Your task to perform on an android device: turn pop-ups on in chrome Image 0: 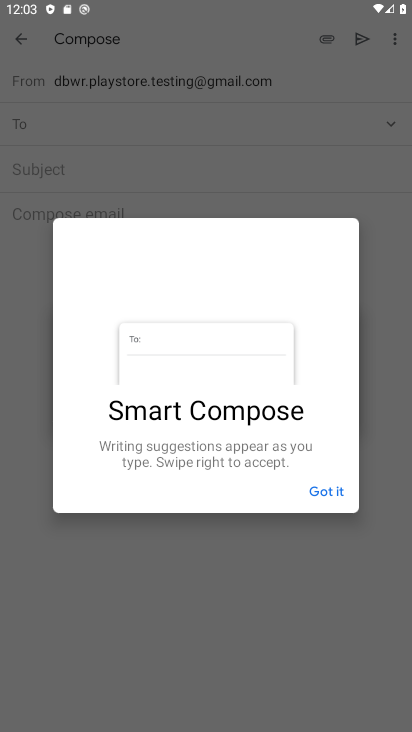
Step 0: press home button
Your task to perform on an android device: turn pop-ups on in chrome Image 1: 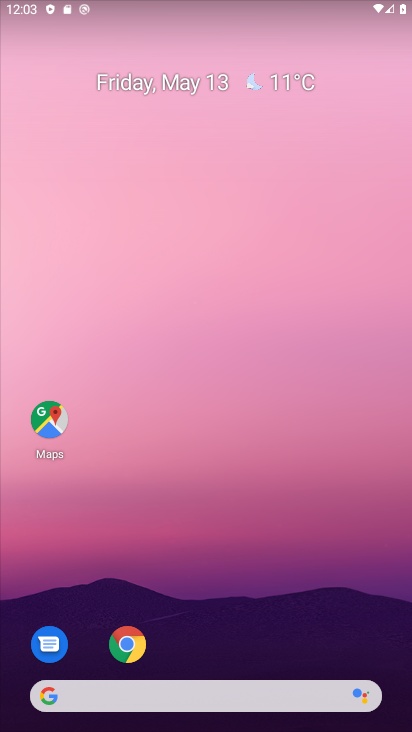
Step 1: click (123, 643)
Your task to perform on an android device: turn pop-ups on in chrome Image 2: 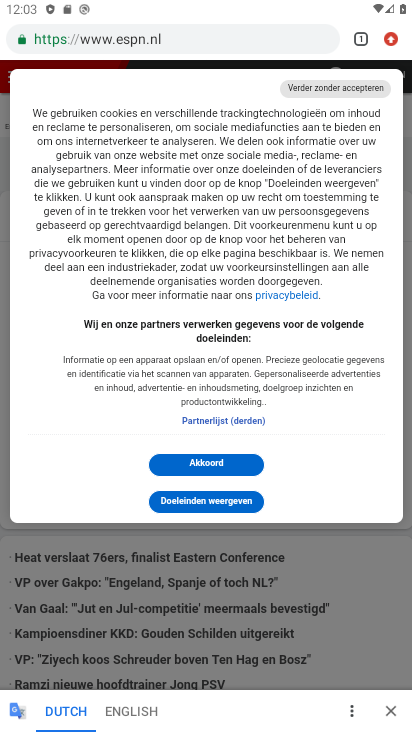
Step 2: click (389, 43)
Your task to perform on an android device: turn pop-ups on in chrome Image 3: 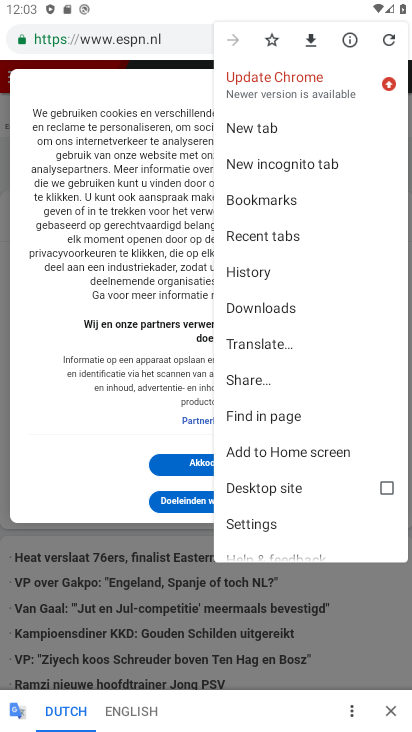
Step 3: click (263, 523)
Your task to perform on an android device: turn pop-ups on in chrome Image 4: 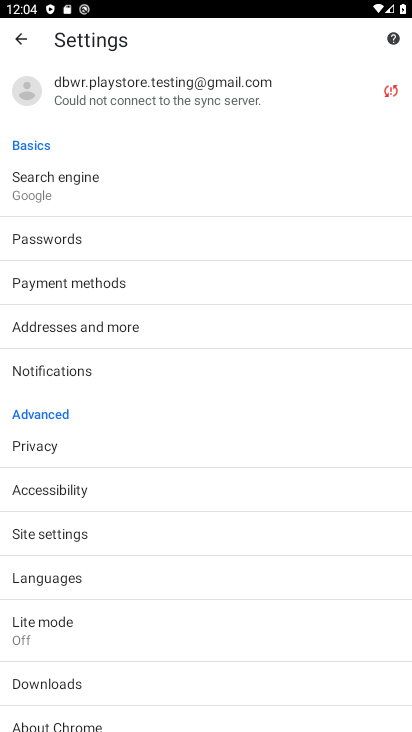
Step 4: click (50, 530)
Your task to perform on an android device: turn pop-ups on in chrome Image 5: 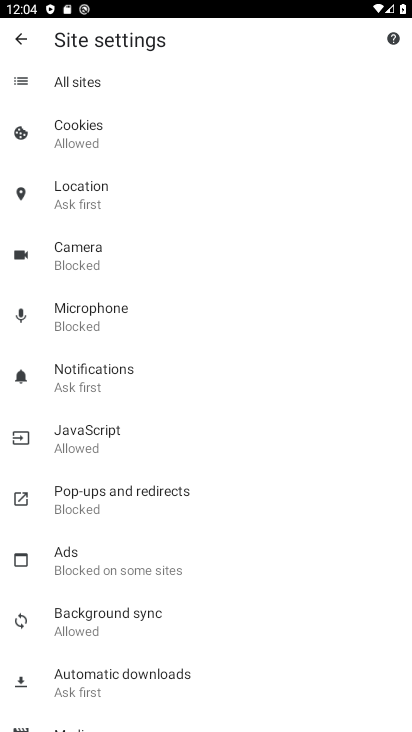
Step 5: click (91, 493)
Your task to perform on an android device: turn pop-ups on in chrome Image 6: 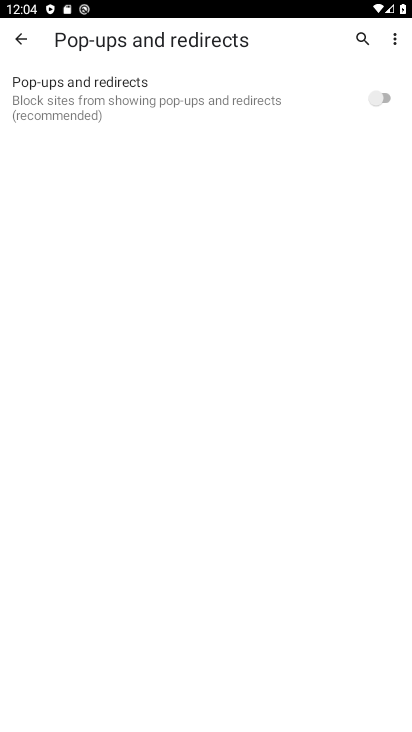
Step 6: click (387, 93)
Your task to perform on an android device: turn pop-ups on in chrome Image 7: 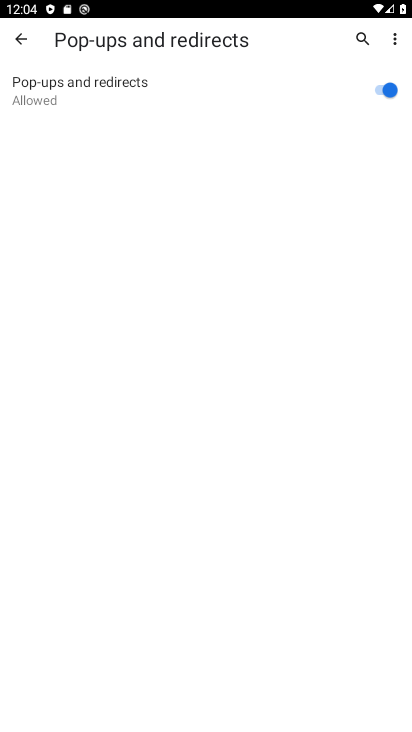
Step 7: task complete